Your task to perform on an android device: Search for Mexican restaurants on Maps Image 0: 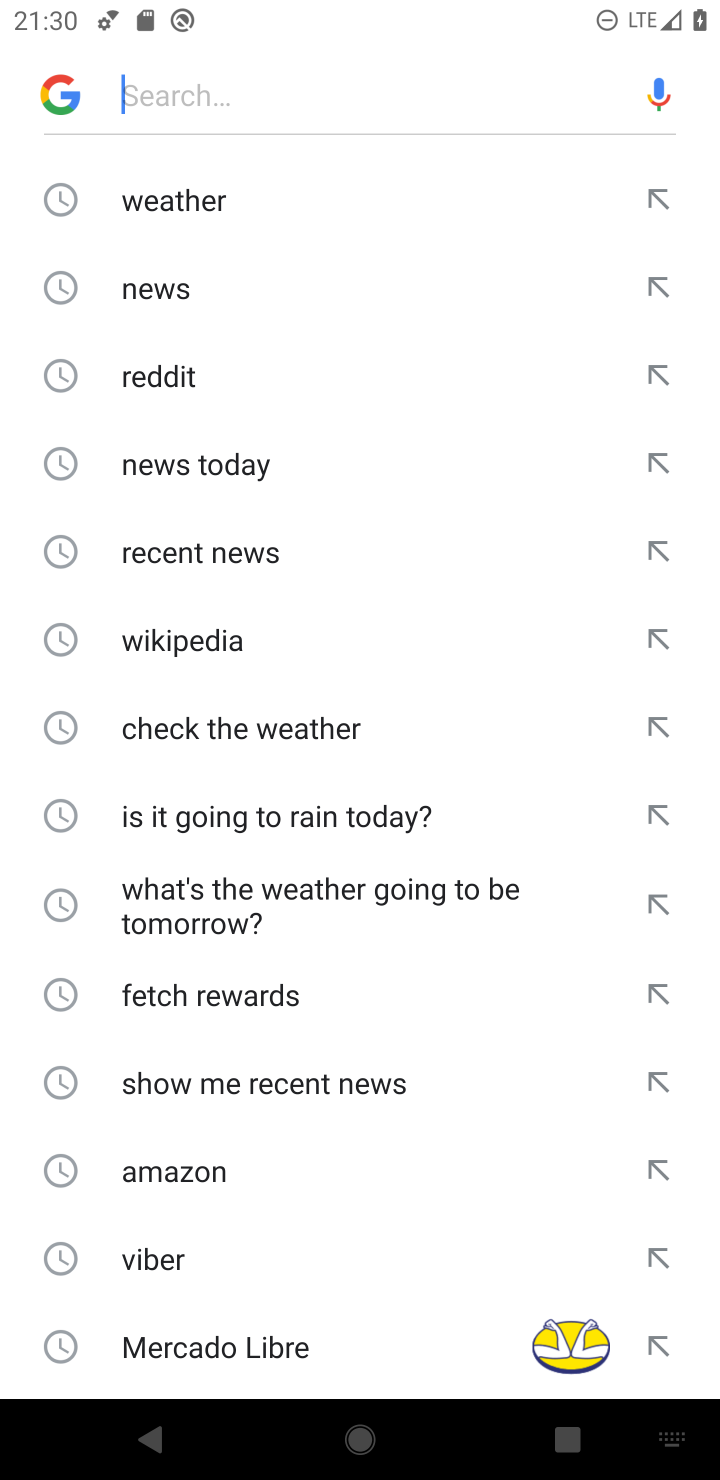
Step 0: press home button
Your task to perform on an android device: Search for Mexican restaurants on Maps Image 1: 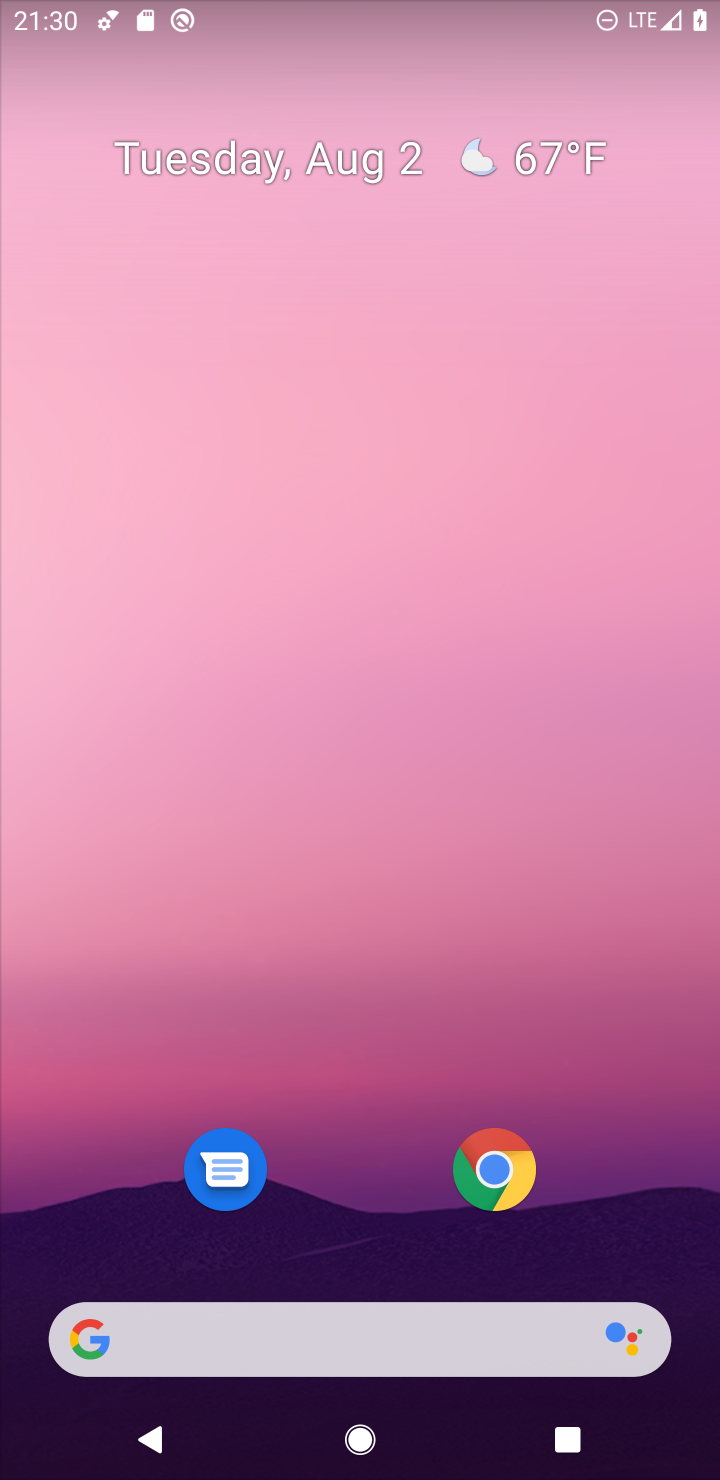
Step 1: drag from (336, 1015) to (361, 6)
Your task to perform on an android device: Search for Mexican restaurants on Maps Image 2: 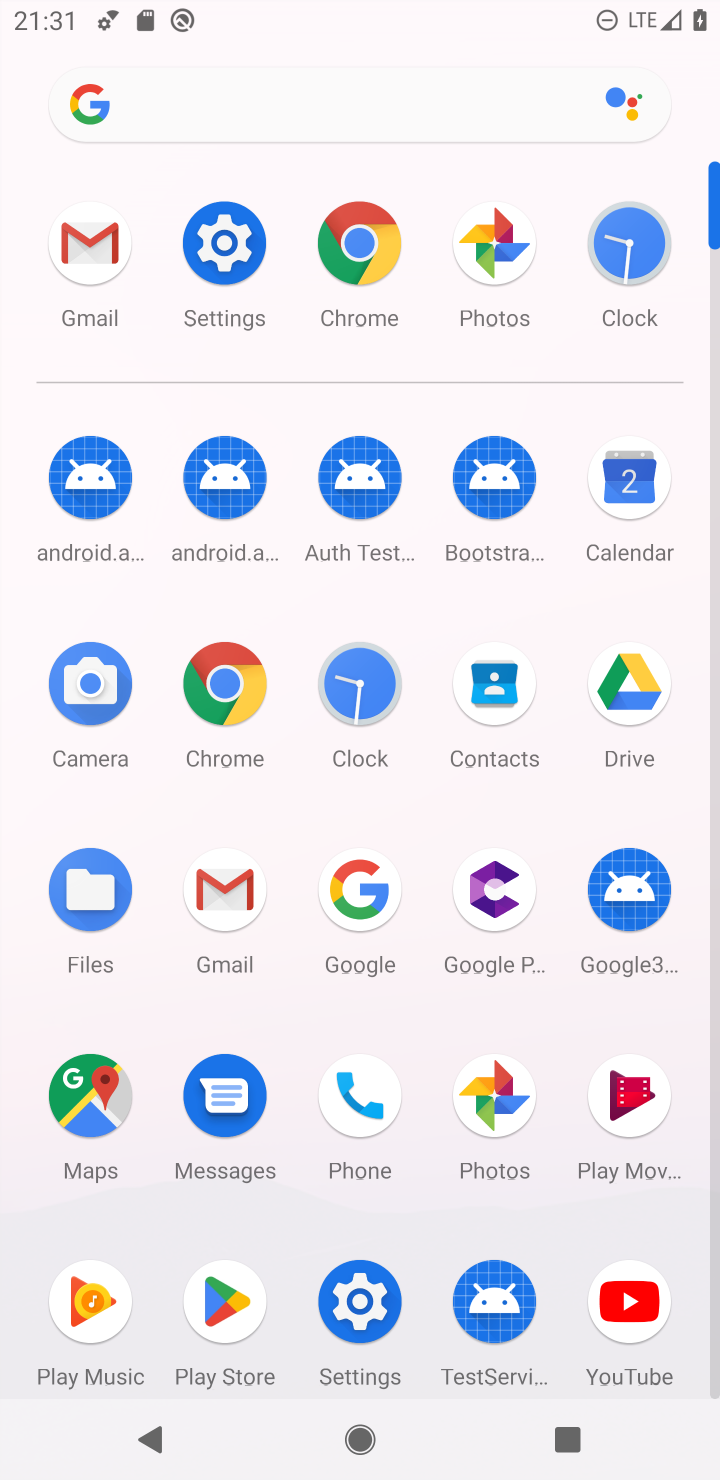
Step 2: click (79, 1095)
Your task to perform on an android device: Search for Mexican restaurants on Maps Image 3: 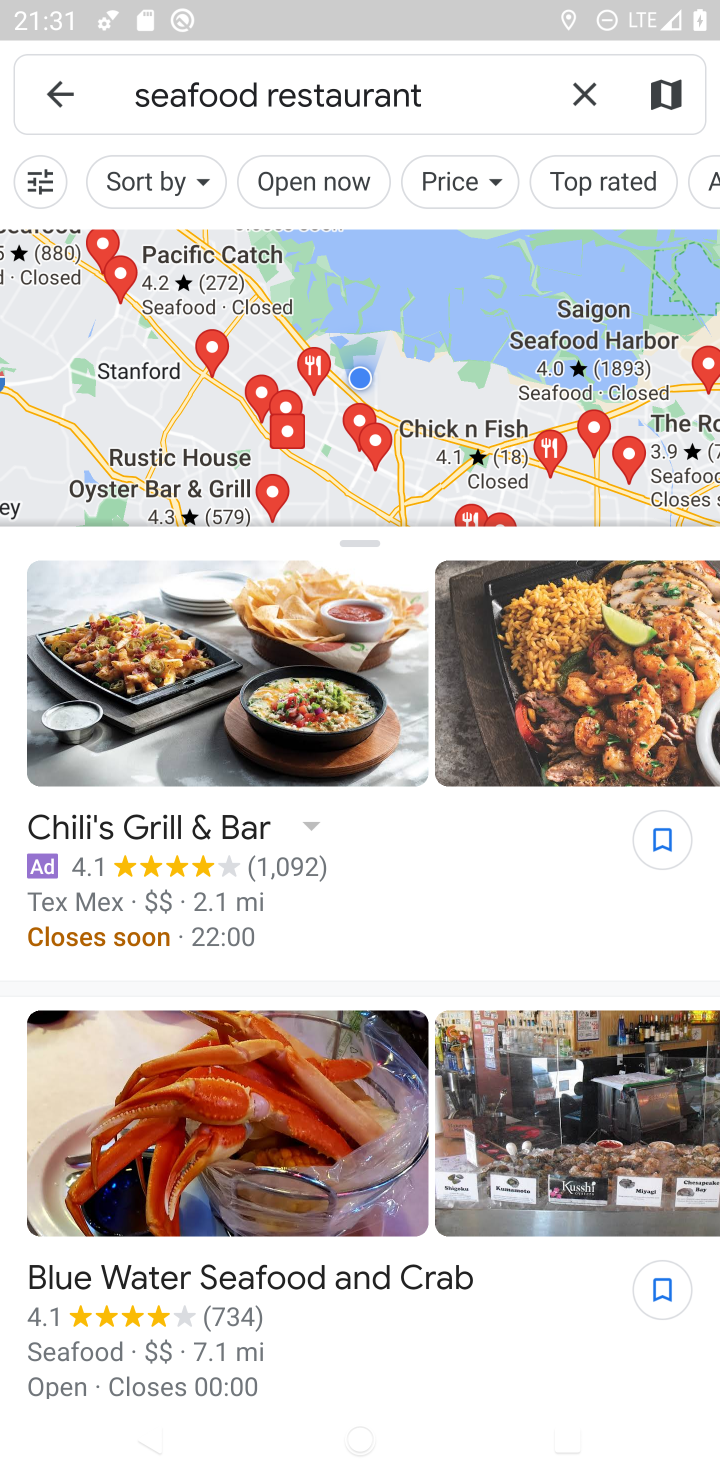
Step 3: click (599, 84)
Your task to perform on an android device: Search for Mexican restaurants on Maps Image 4: 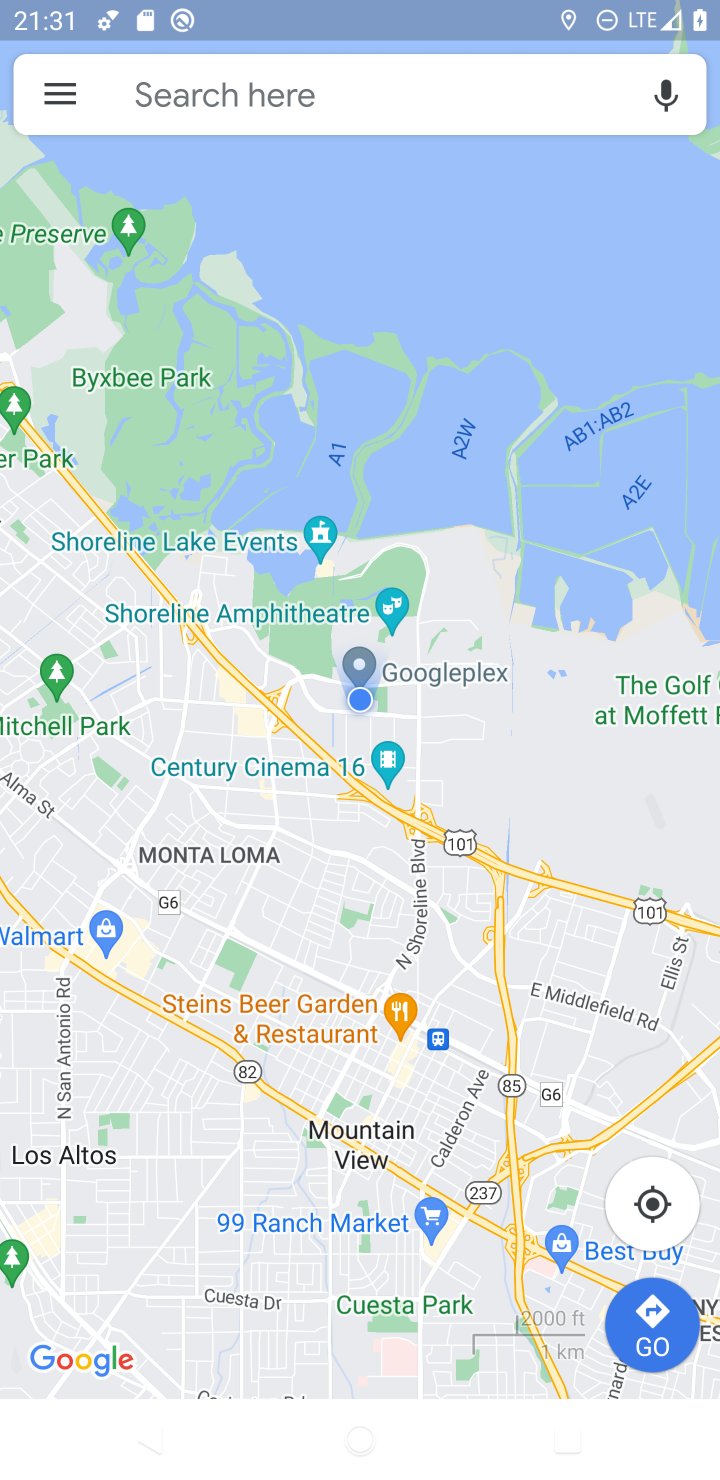
Step 4: click (283, 85)
Your task to perform on an android device: Search for Mexican restaurants on Maps Image 5: 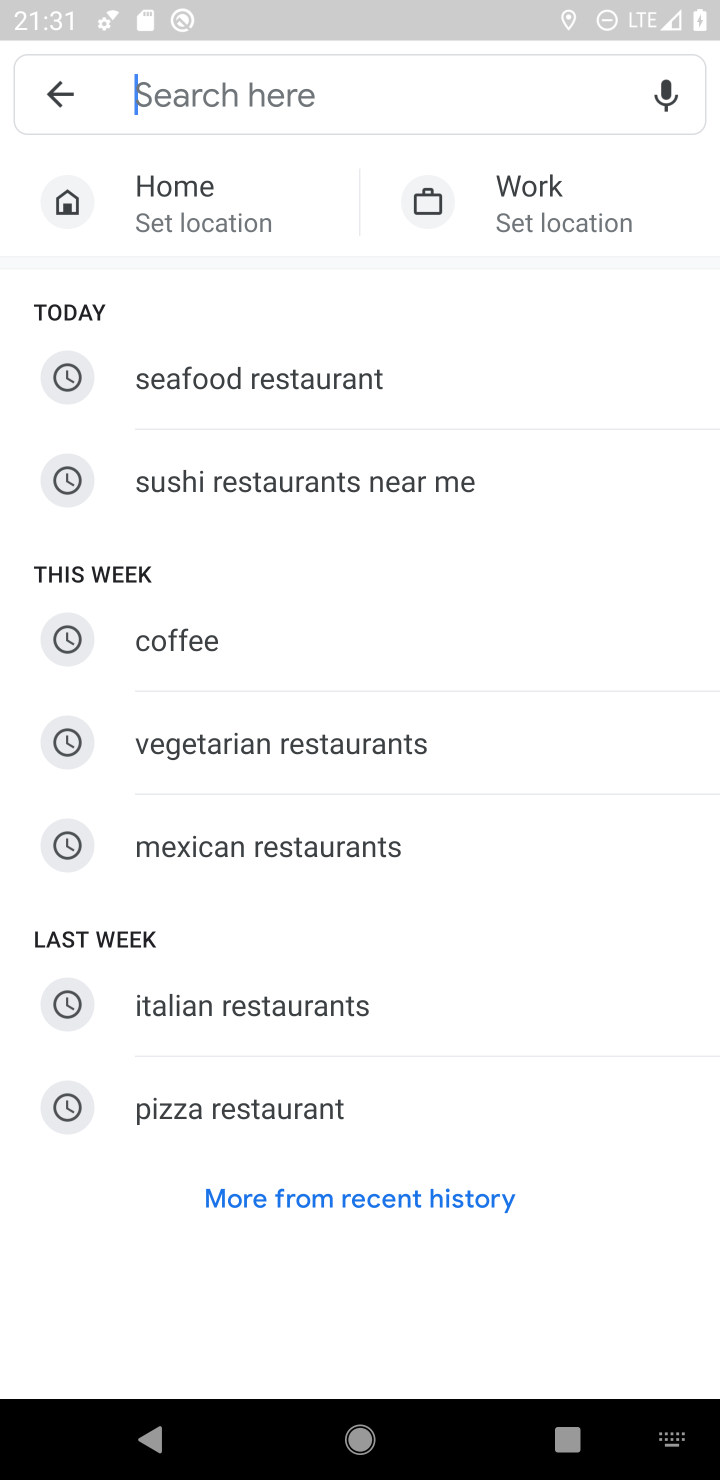
Step 5: type "Mexican restaurants"
Your task to perform on an android device: Search for Mexican restaurants on Maps Image 6: 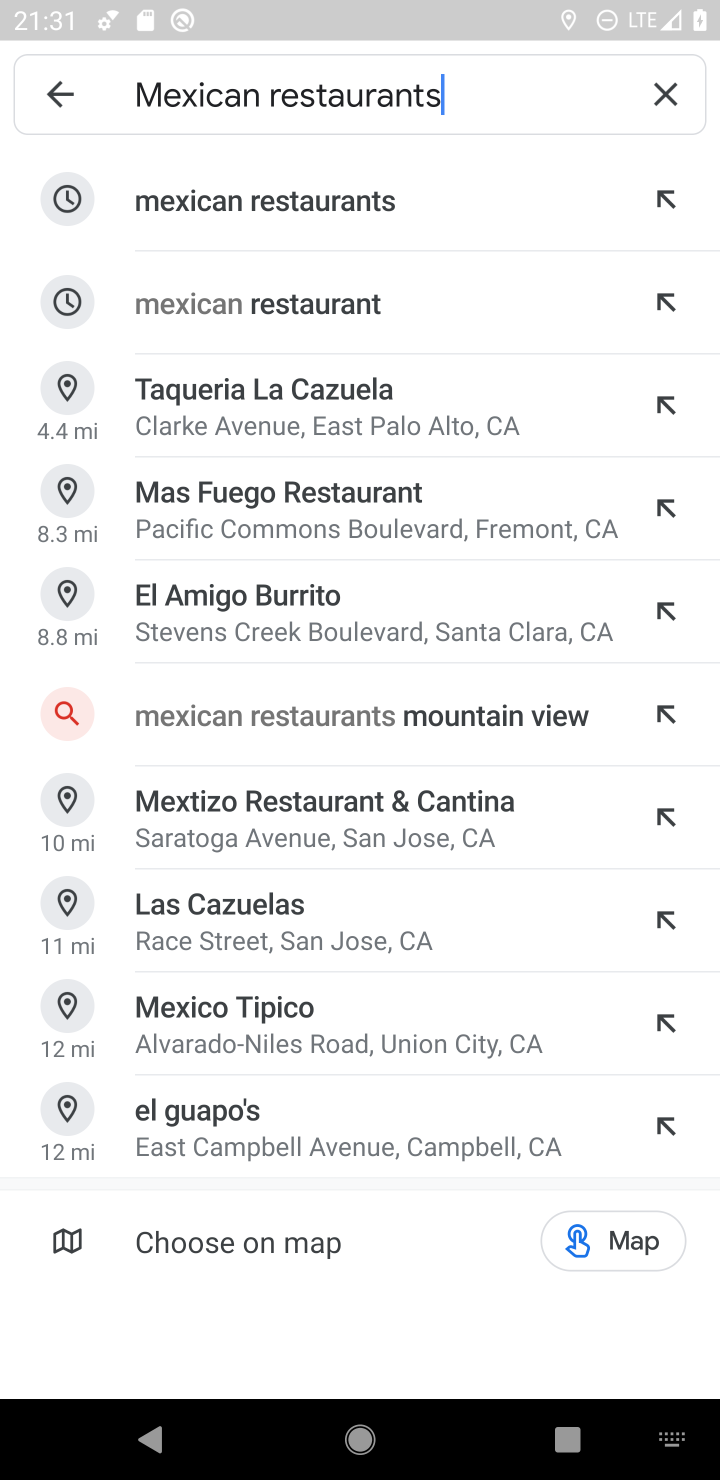
Step 6: click (209, 191)
Your task to perform on an android device: Search for Mexican restaurants on Maps Image 7: 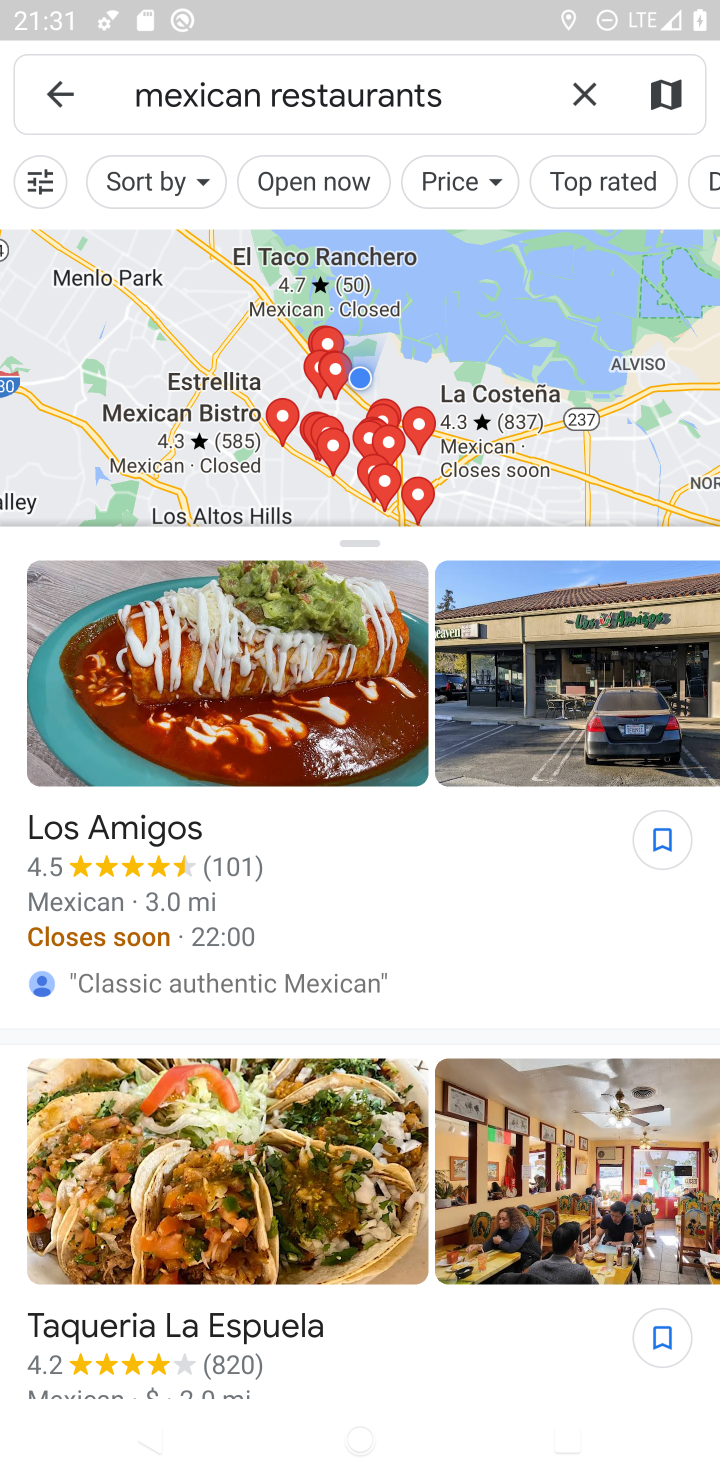
Step 7: task complete